Your task to perform on an android device: check the backup settings in the google photos Image 0: 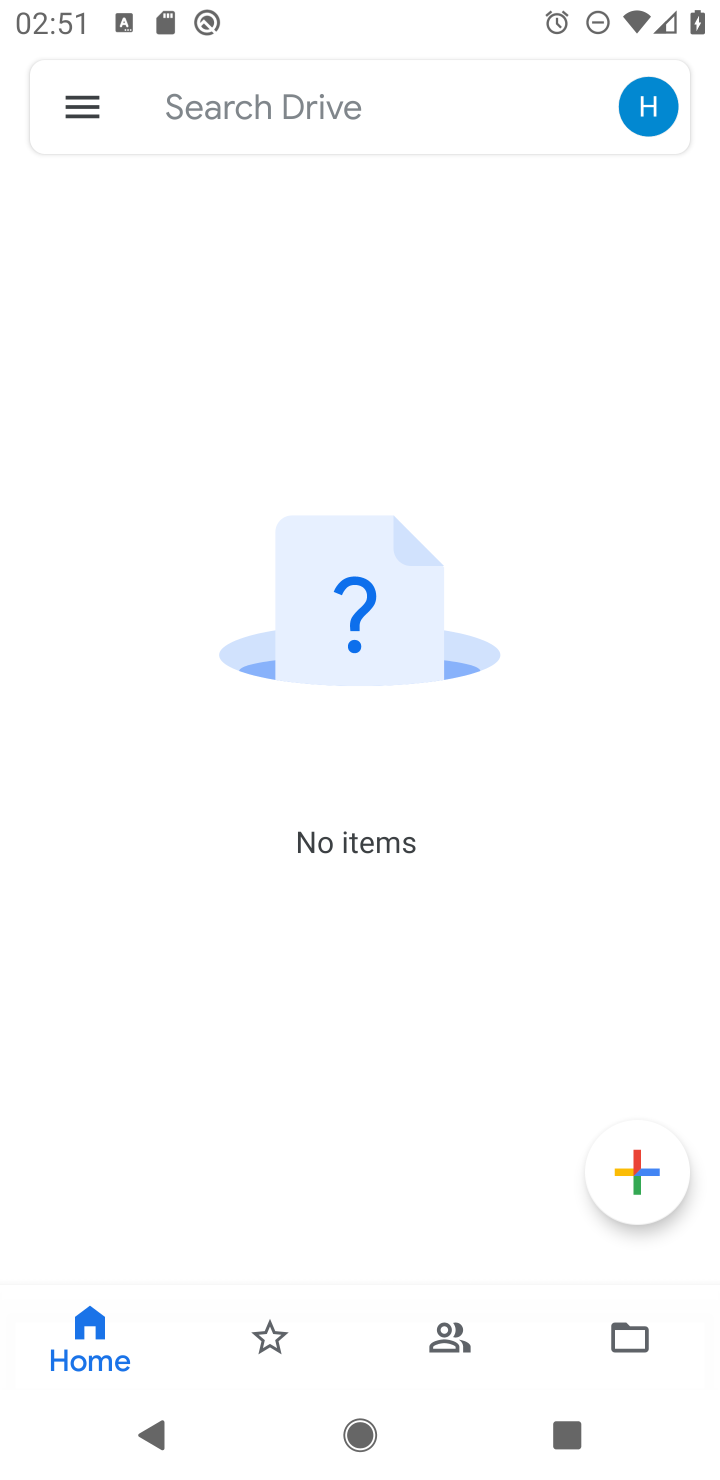
Step 0: press home button
Your task to perform on an android device: check the backup settings in the google photos Image 1: 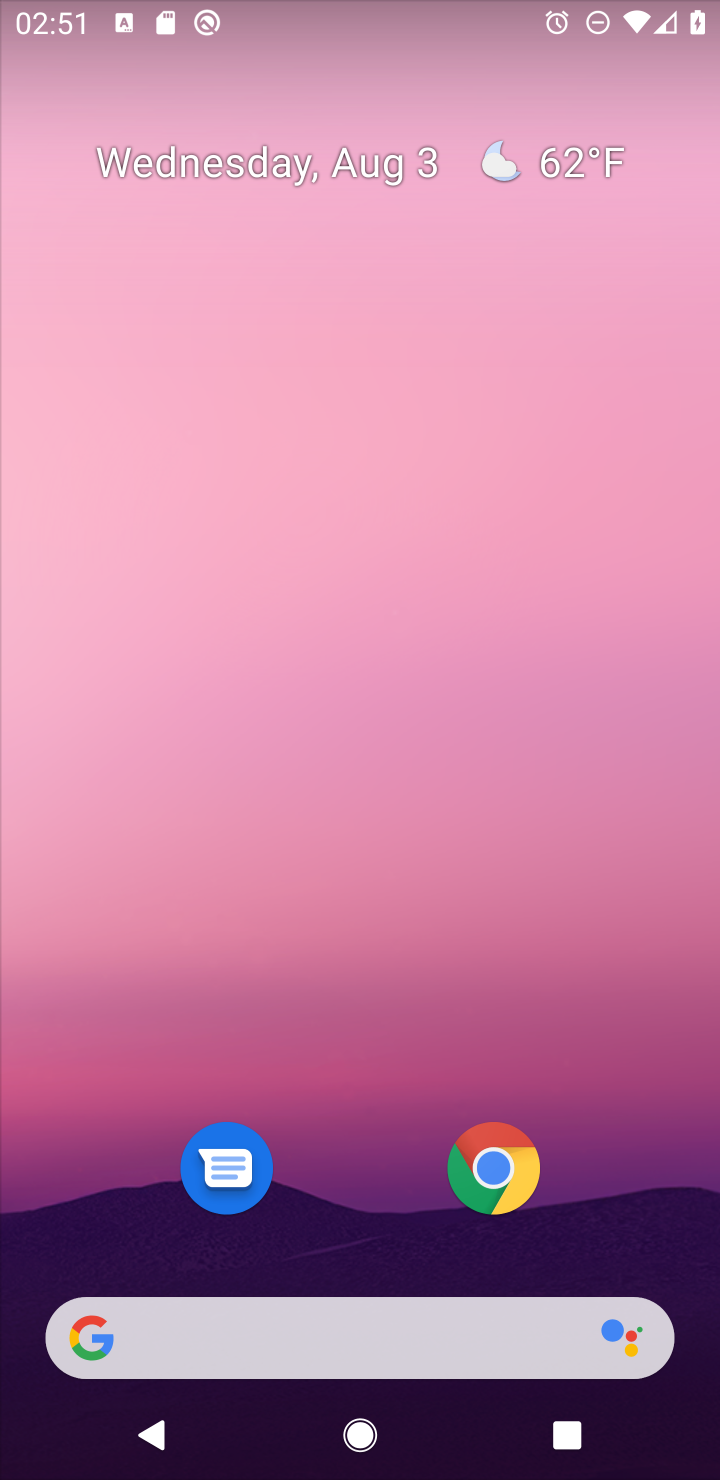
Step 1: drag from (683, 1270) to (622, 324)
Your task to perform on an android device: check the backup settings in the google photos Image 2: 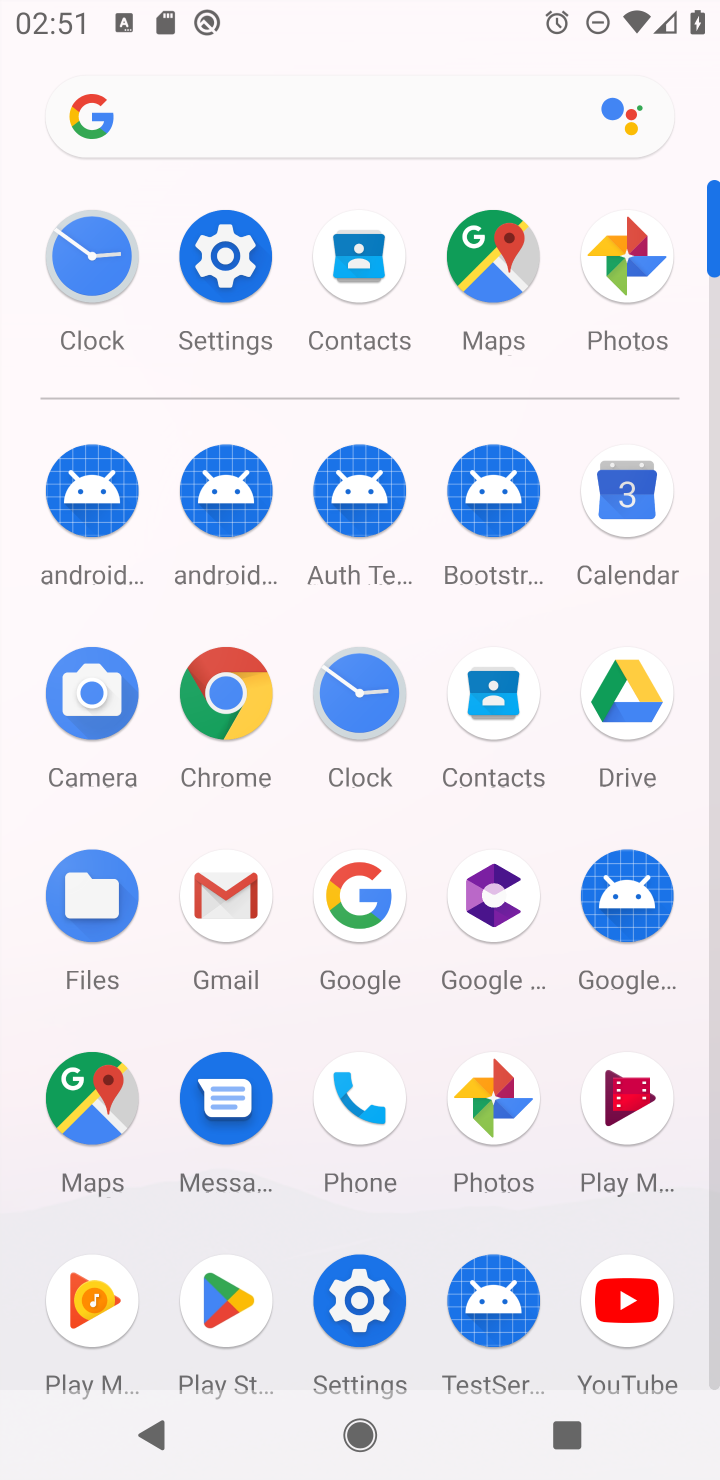
Step 2: click (496, 1101)
Your task to perform on an android device: check the backup settings in the google photos Image 3: 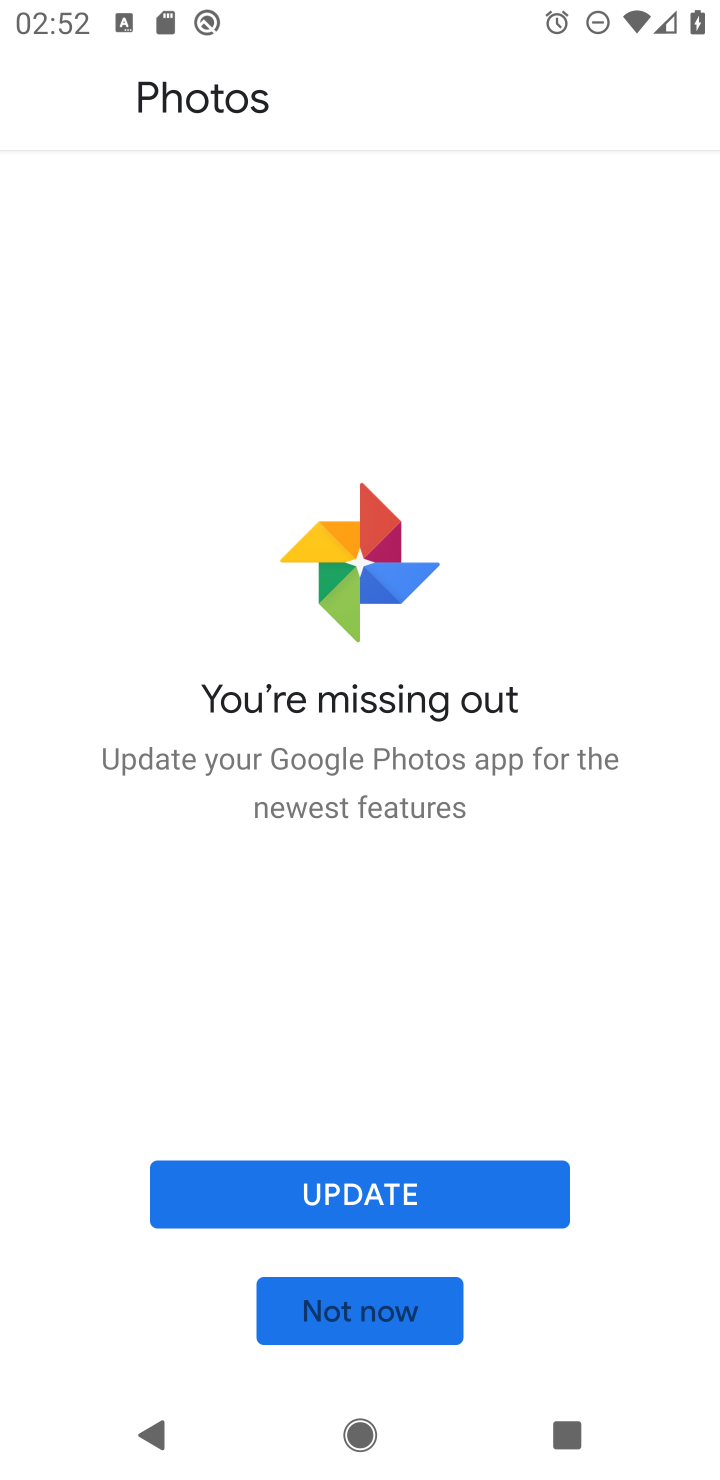
Step 3: click (334, 1195)
Your task to perform on an android device: check the backup settings in the google photos Image 4: 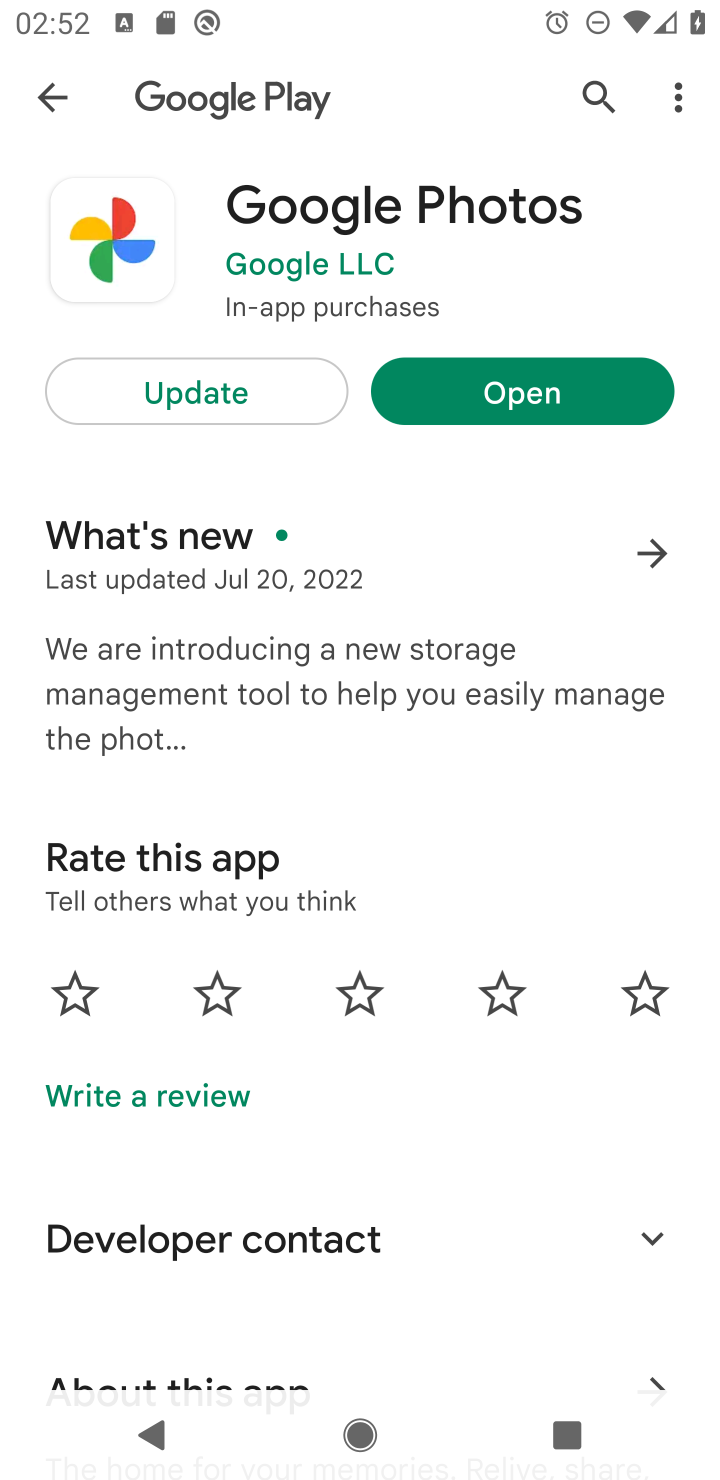
Step 4: drag from (367, 1265) to (402, 576)
Your task to perform on an android device: check the backup settings in the google photos Image 5: 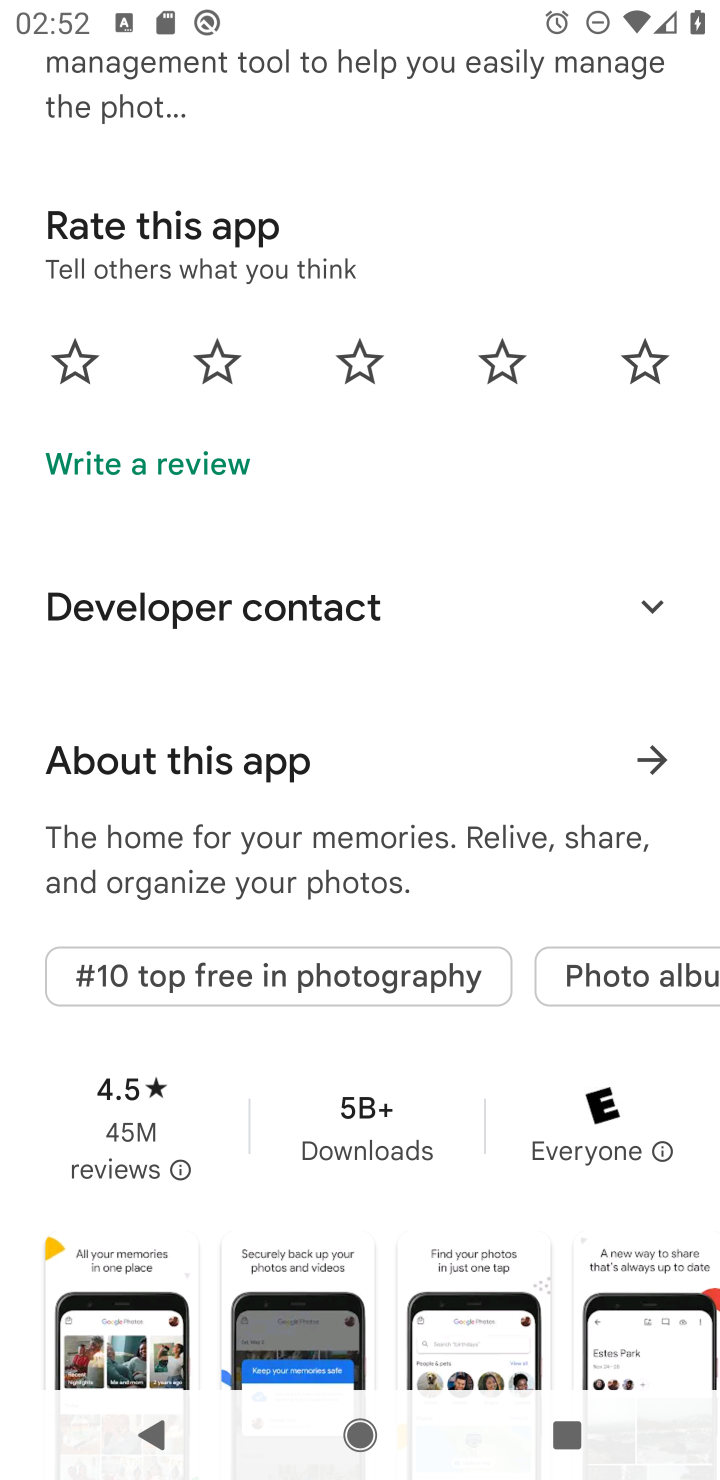
Step 5: drag from (459, 1177) to (467, 441)
Your task to perform on an android device: check the backup settings in the google photos Image 6: 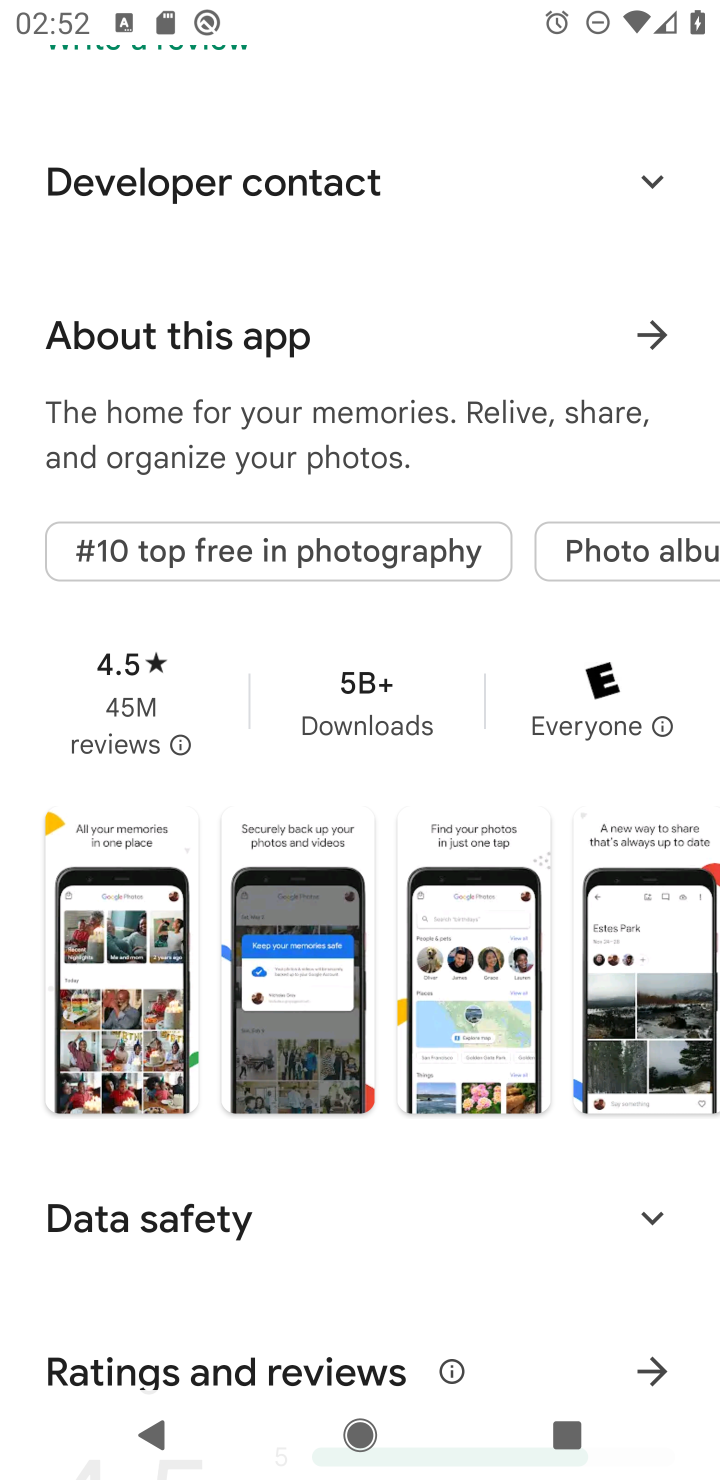
Step 6: drag from (501, 372) to (462, 1054)
Your task to perform on an android device: check the backup settings in the google photos Image 7: 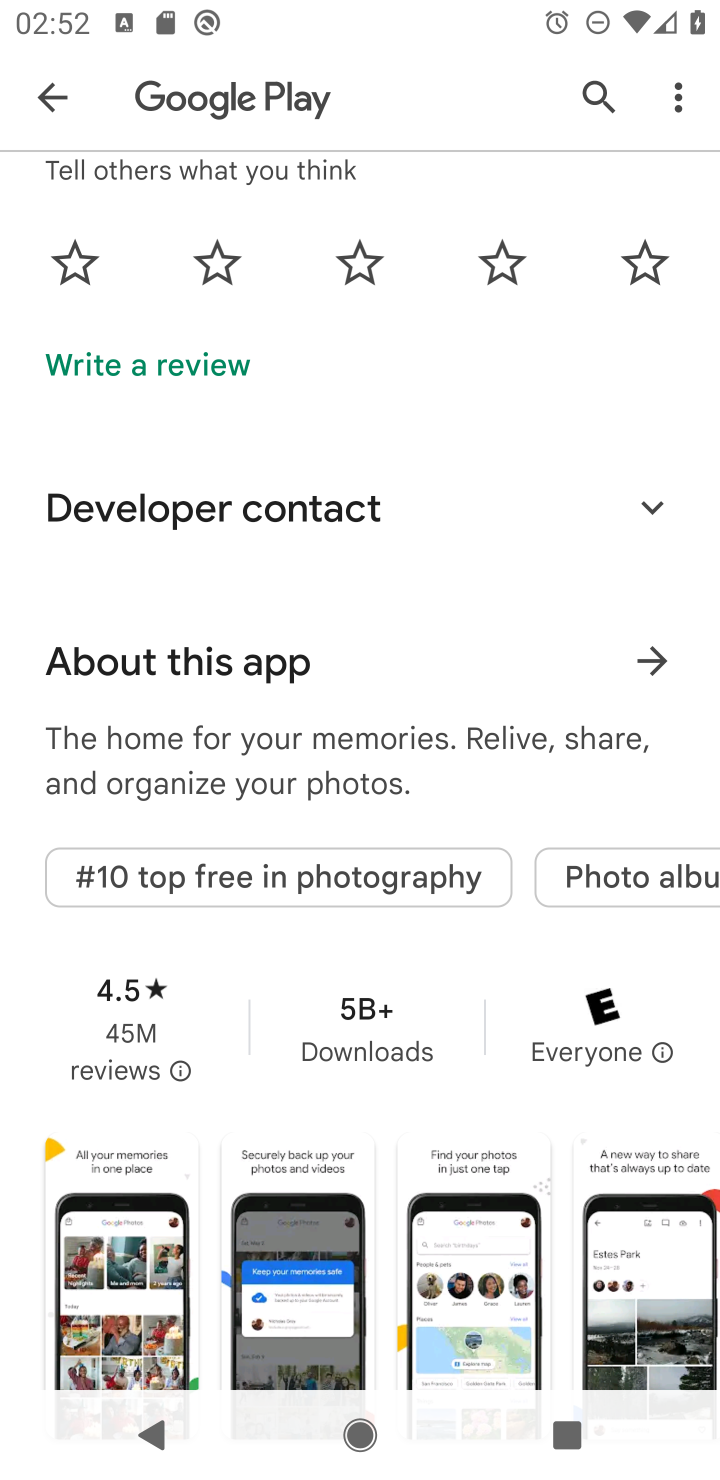
Step 7: drag from (518, 471) to (518, 1041)
Your task to perform on an android device: check the backup settings in the google photos Image 8: 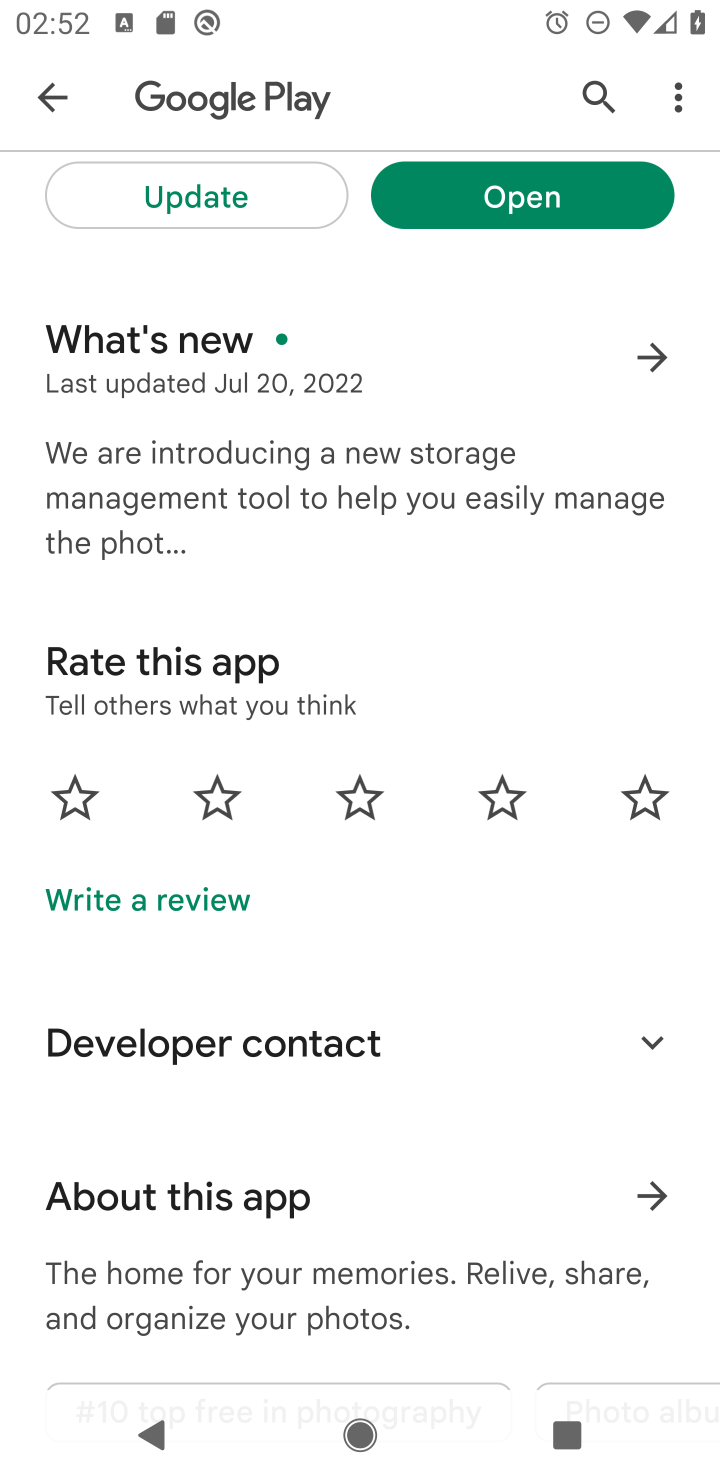
Step 8: drag from (438, 410) to (426, 1030)
Your task to perform on an android device: check the backup settings in the google photos Image 9: 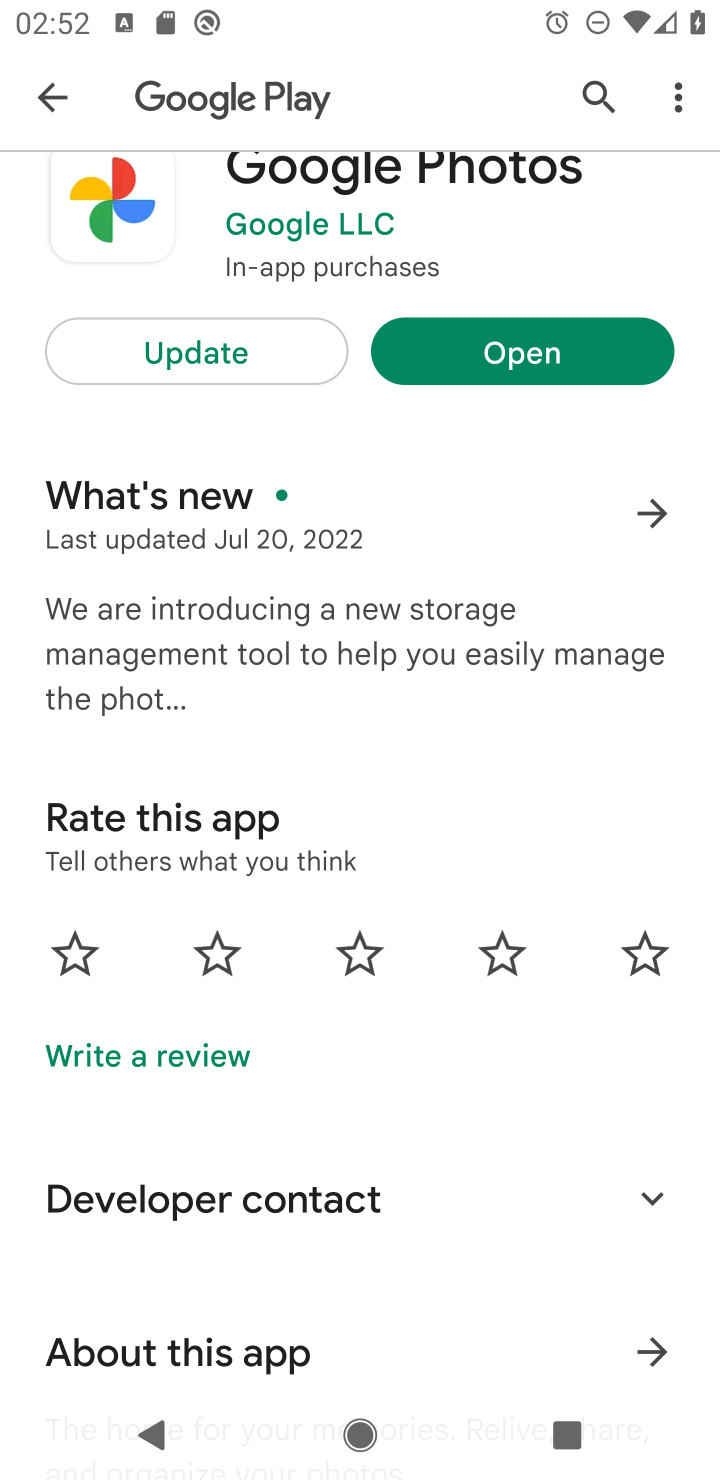
Step 9: drag from (448, 557) to (425, 1112)
Your task to perform on an android device: check the backup settings in the google photos Image 10: 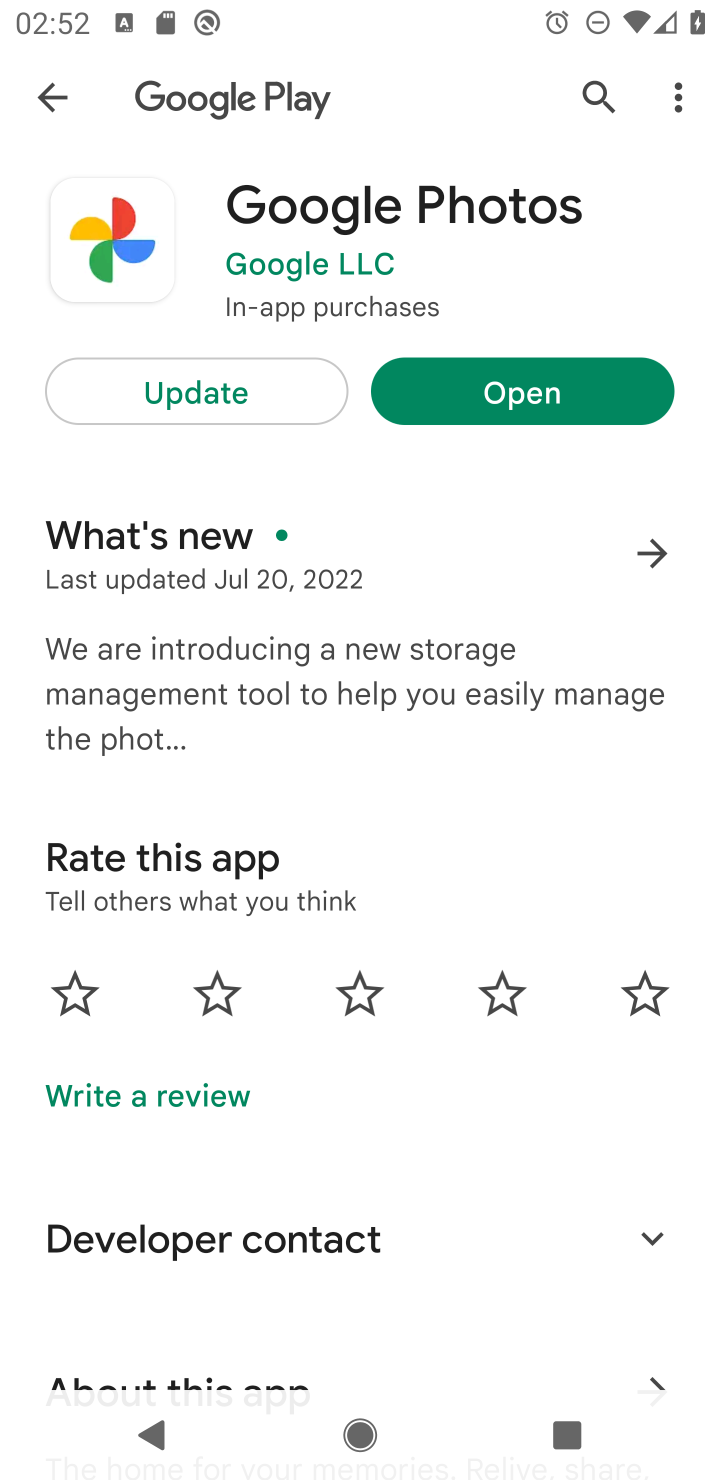
Step 10: click (195, 394)
Your task to perform on an android device: check the backup settings in the google photos Image 11: 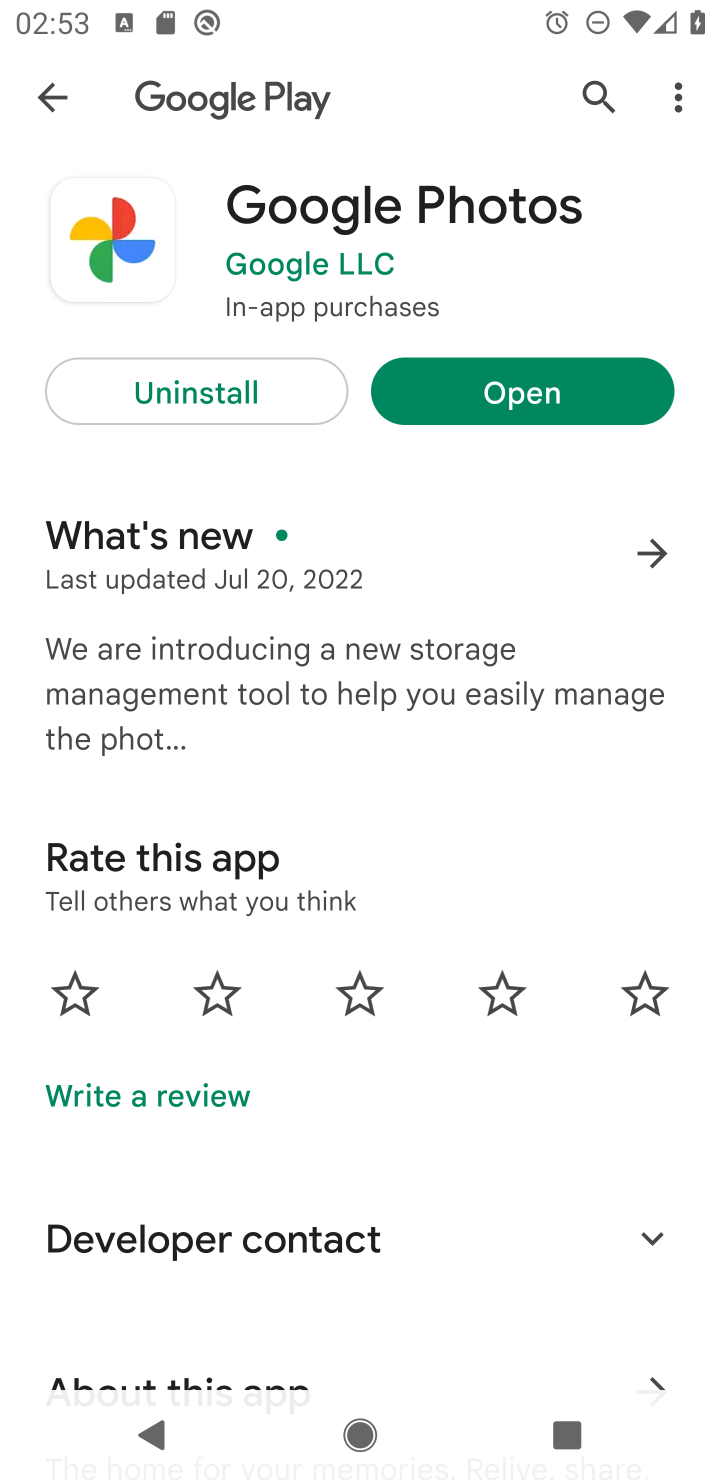
Step 11: click (515, 397)
Your task to perform on an android device: check the backup settings in the google photos Image 12: 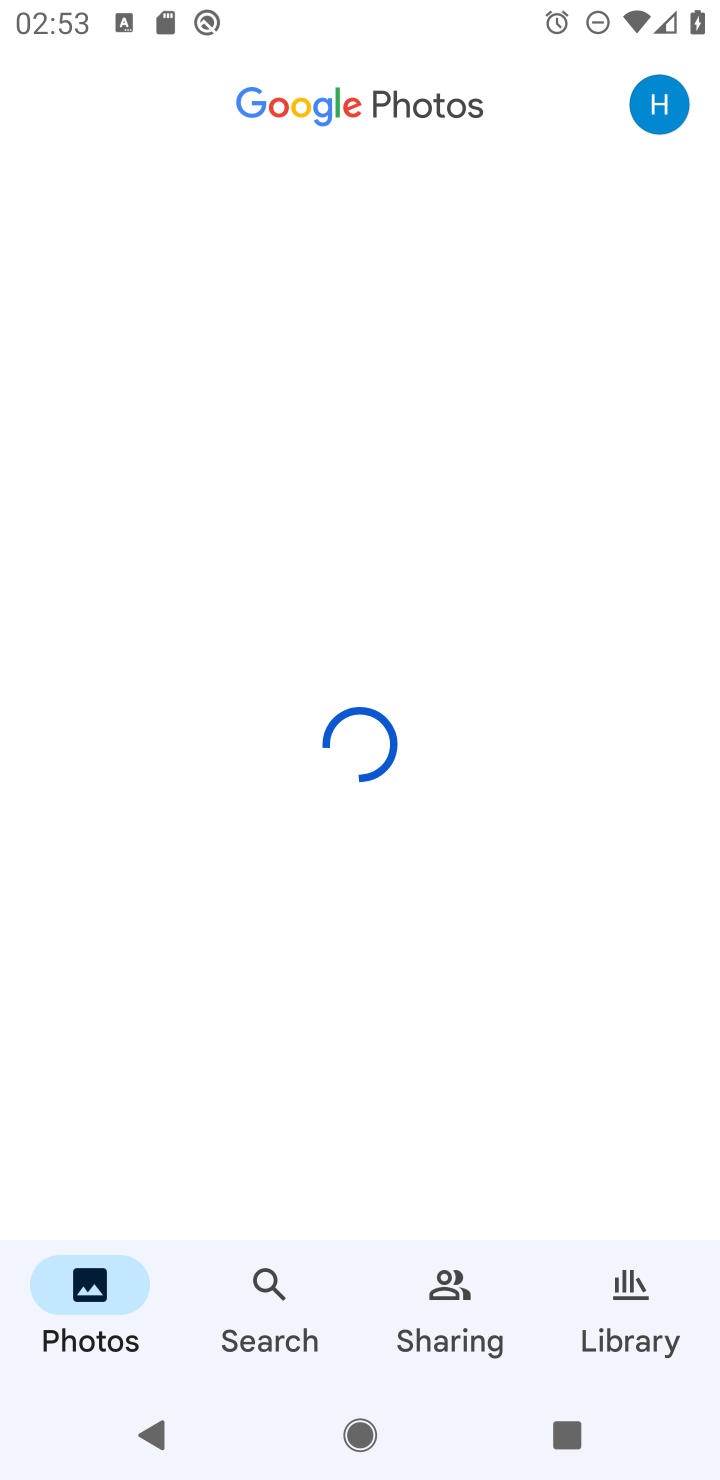
Step 12: click (651, 111)
Your task to perform on an android device: check the backup settings in the google photos Image 13: 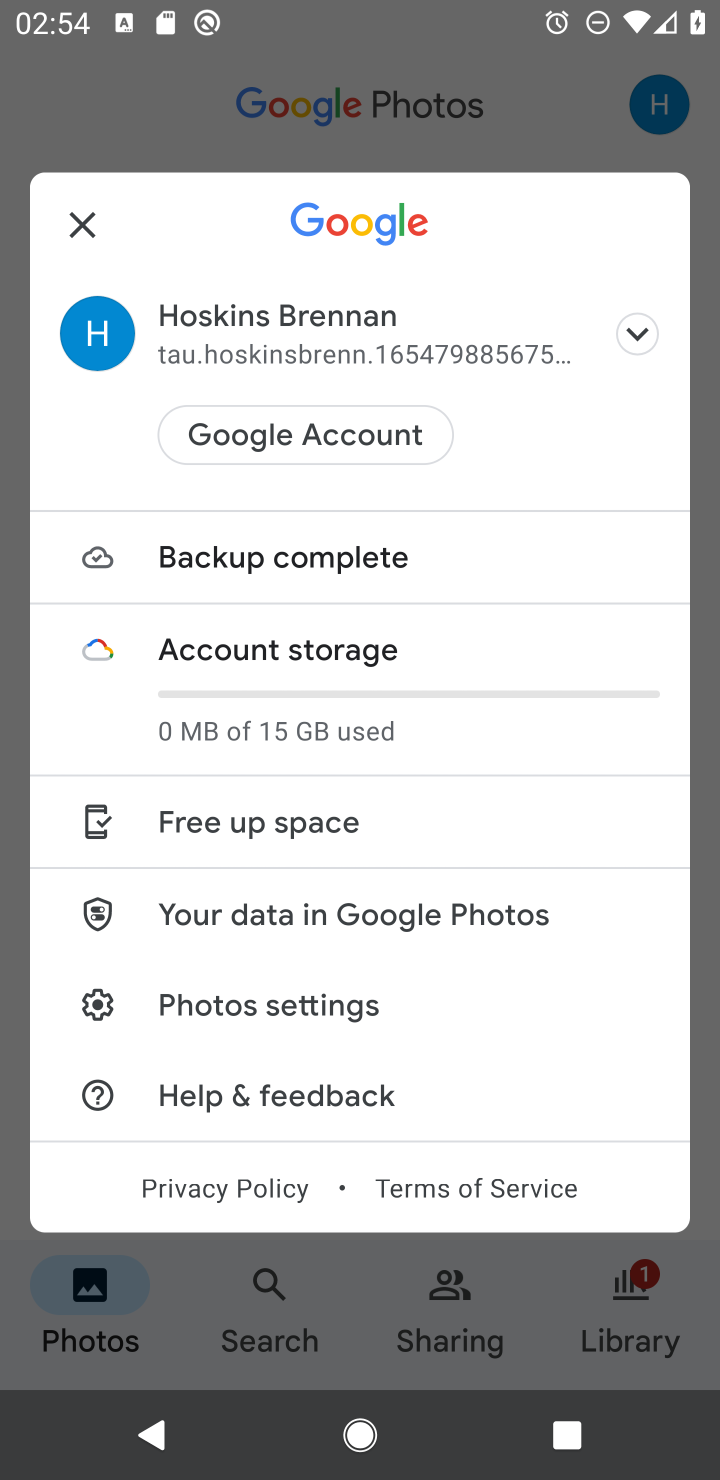
Step 13: click (251, 1002)
Your task to perform on an android device: check the backup settings in the google photos Image 14: 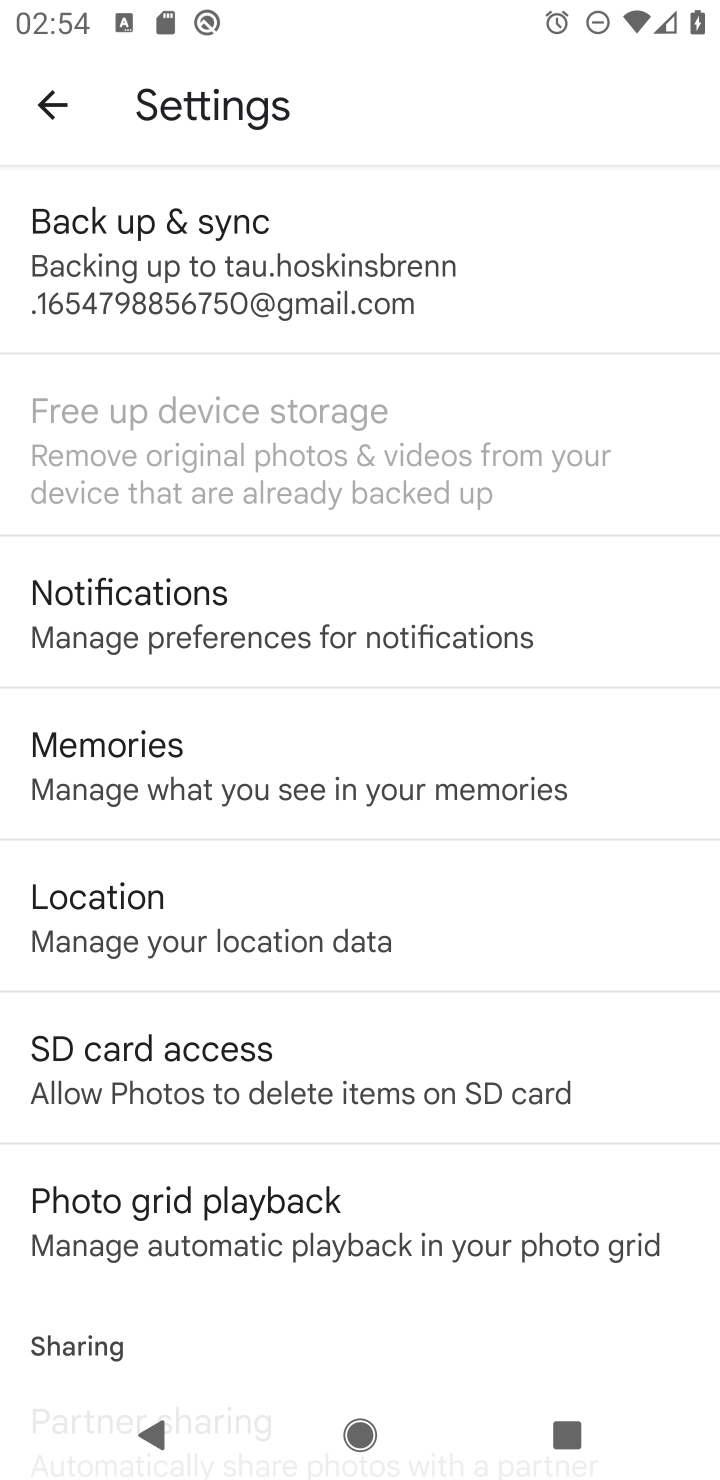
Step 14: click (177, 235)
Your task to perform on an android device: check the backup settings in the google photos Image 15: 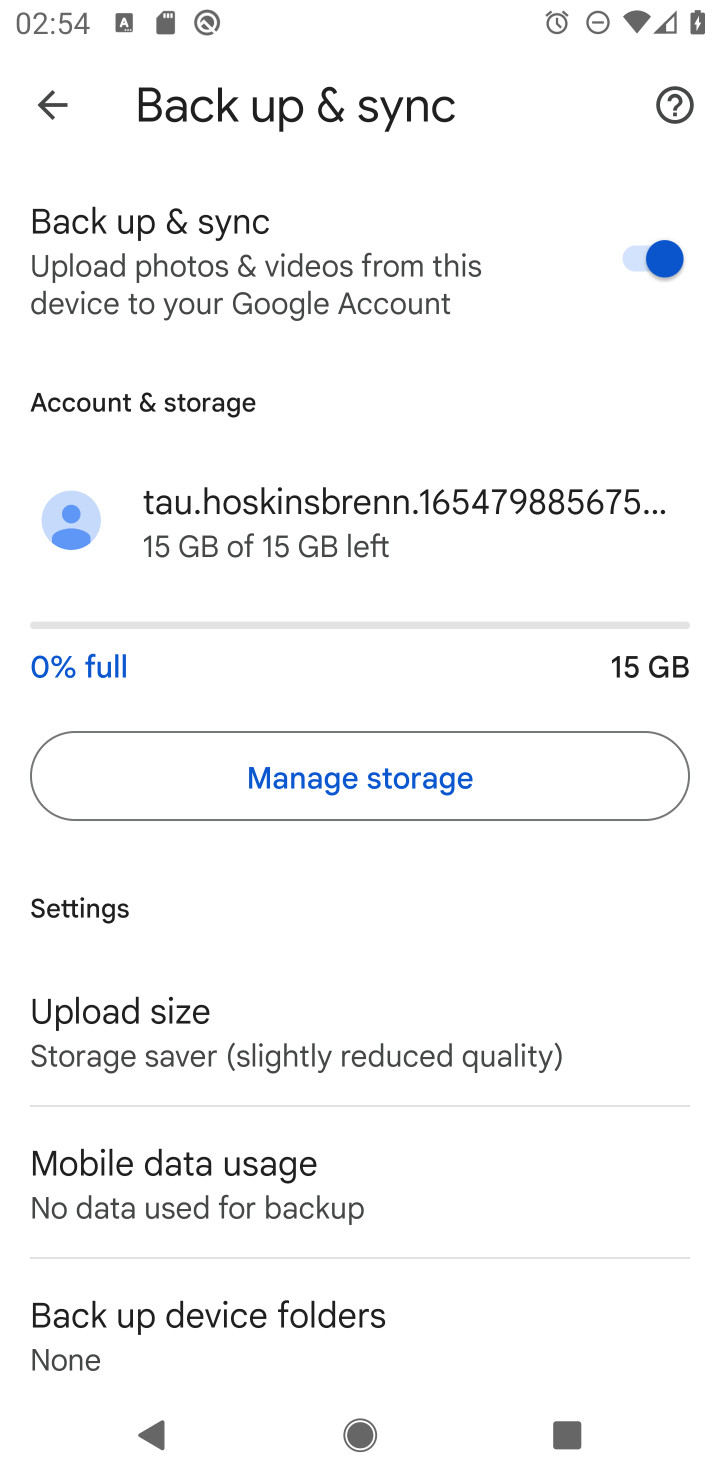
Step 15: task complete